Your task to perform on an android device: allow cookies in the chrome app Image 0: 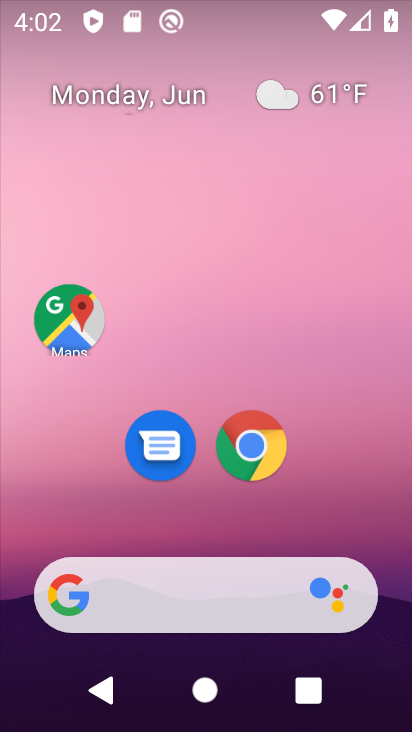
Step 0: click (251, 451)
Your task to perform on an android device: allow cookies in the chrome app Image 1: 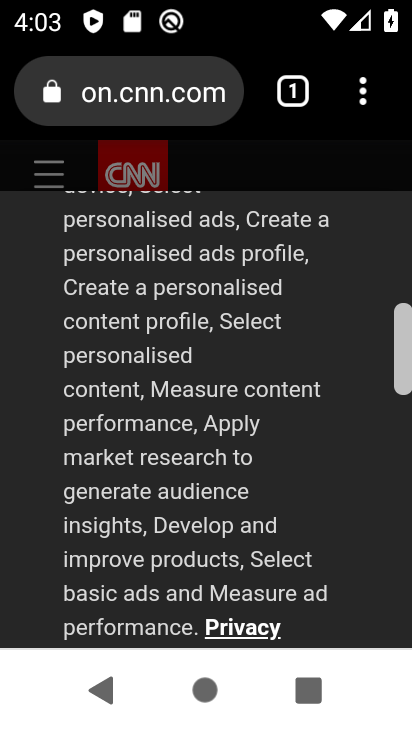
Step 1: click (358, 95)
Your task to perform on an android device: allow cookies in the chrome app Image 2: 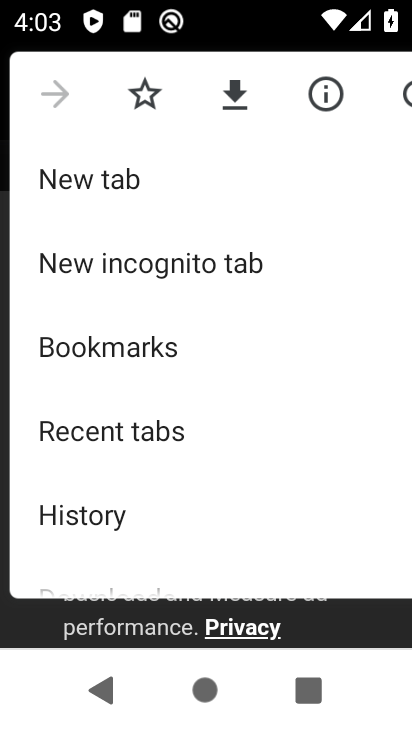
Step 2: drag from (158, 535) to (147, 401)
Your task to perform on an android device: allow cookies in the chrome app Image 3: 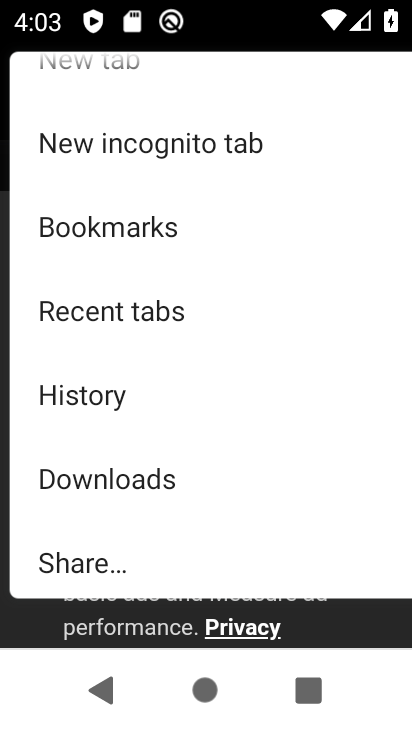
Step 3: drag from (114, 514) to (153, 370)
Your task to perform on an android device: allow cookies in the chrome app Image 4: 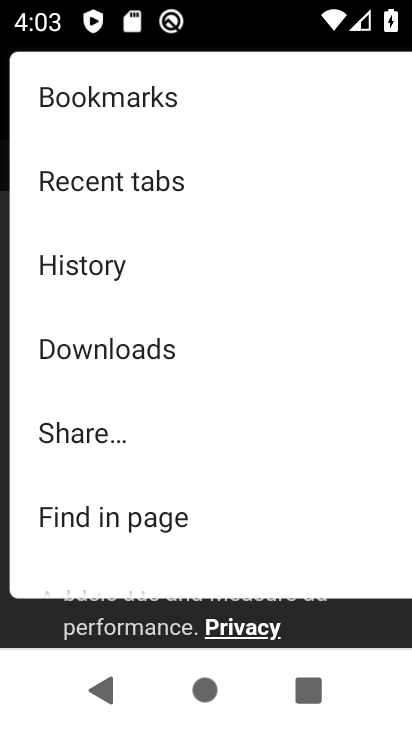
Step 4: drag from (124, 549) to (145, 412)
Your task to perform on an android device: allow cookies in the chrome app Image 5: 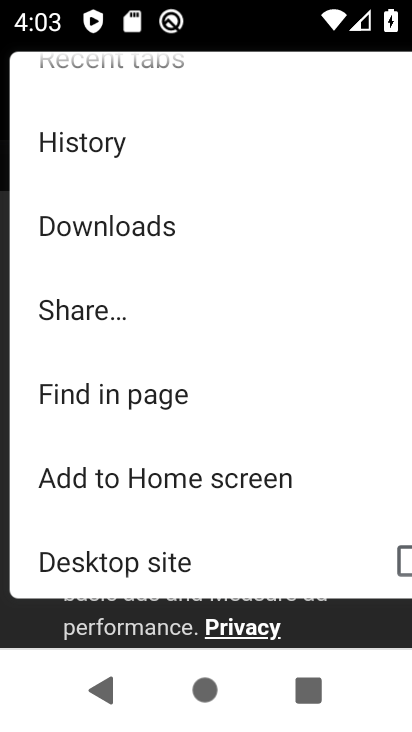
Step 5: drag from (159, 517) to (244, 211)
Your task to perform on an android device: allow cookies in the chrome app Image 6: 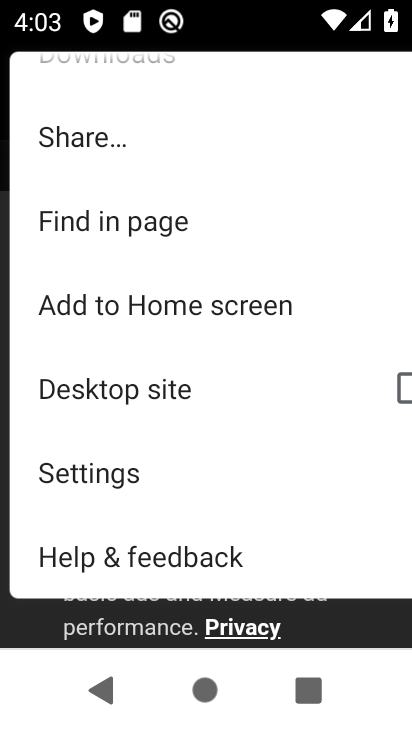
Step 6: click (116, 491)
Your task to perform on an android device: allow cookies in the chrome app Image 7: 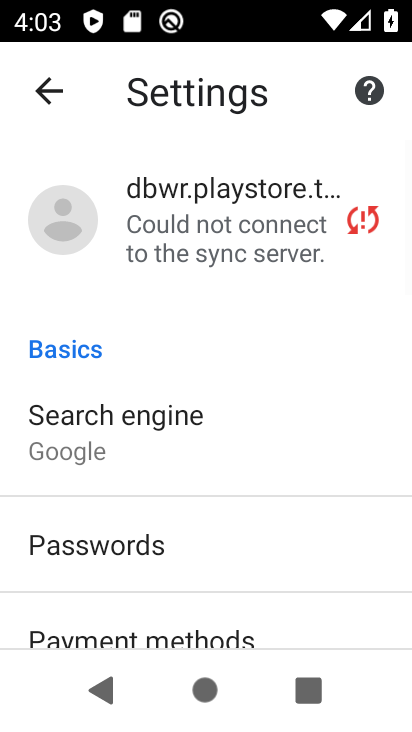
Step 7: drag from (141, 590) to (174, 299)
Your task to perform on an android device: allow cookies in the chrome app Image 8: 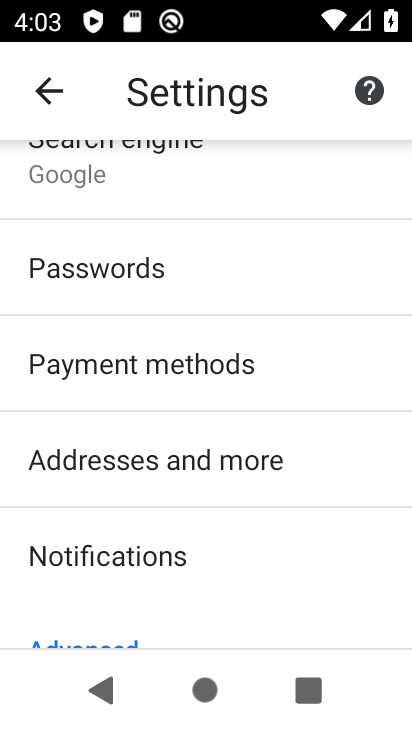
Step 8: drag from (157, 584) to (212, 255)
Your task to perform on an android device: allow cookies in the chrome app Image 9: 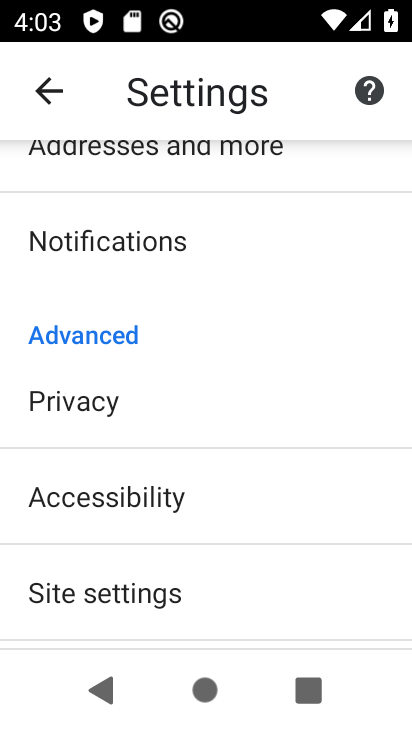
Step 9: click (117, 600)
Your task to perform on an android device: allow cookies in the chrome app Image 10: 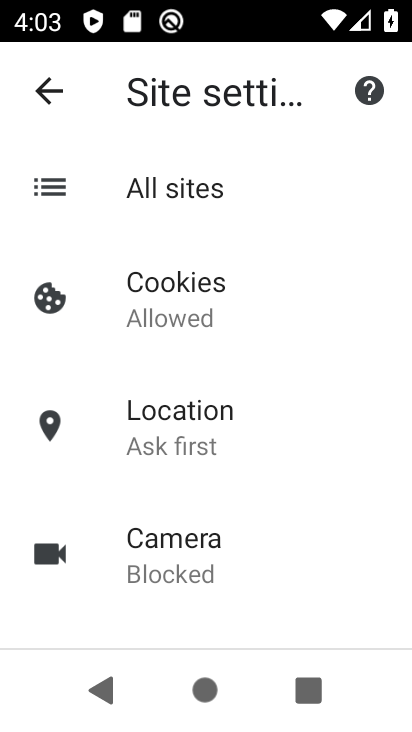
Step 10: click (163, 323)
Your task to perform on an android device: allow cookies in the chrome app Image 11: 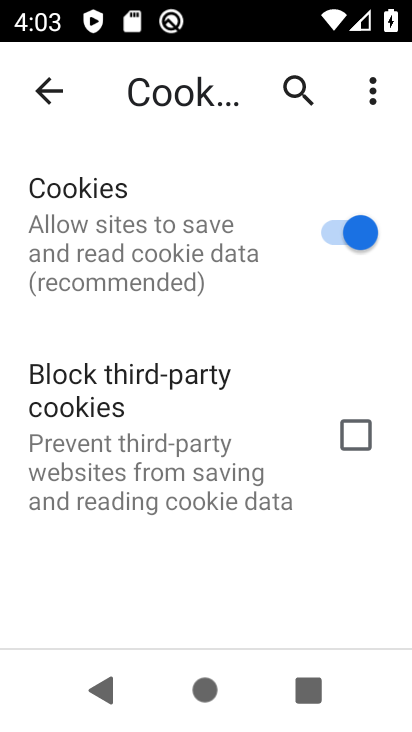
Step 11: task complete